Your task to perform on an android device: change text size in settings app Image 0: 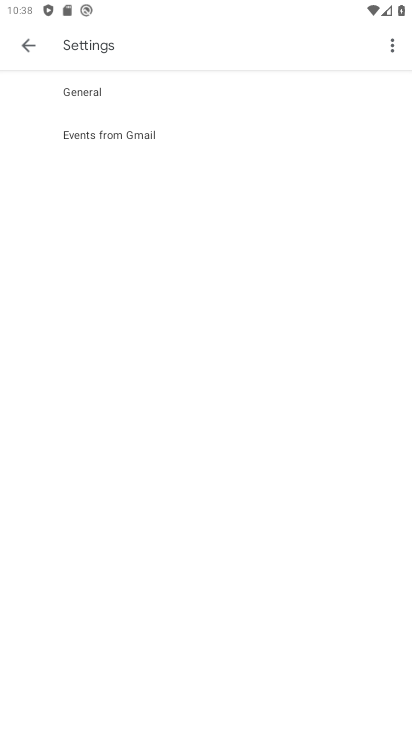
Step 0: press home button
Your task to perform on an android device: change text size in settings app Image 1: 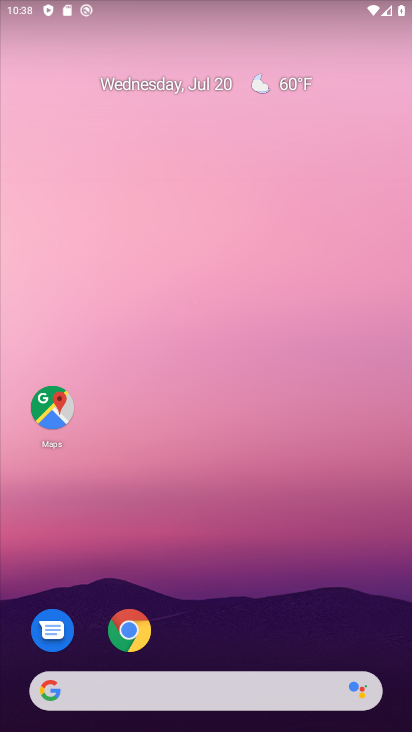
Step 1: drag from (259, 728) to (247, 163)
Your task to perform on an android device: change text size in settings app Image 2: 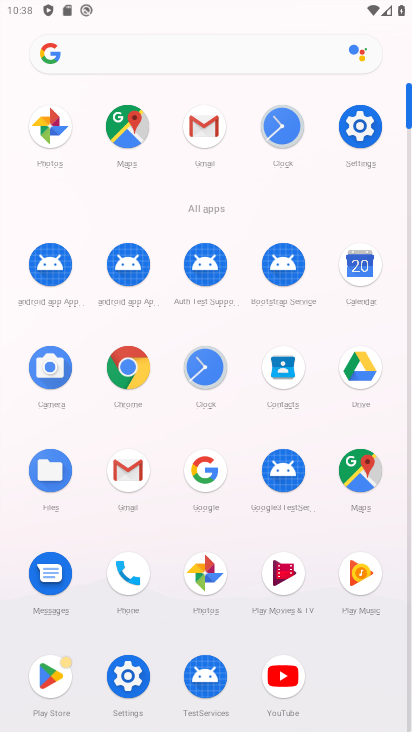
Step 2: click (364, 124)
Your task to perform on an android device: change text size in settings app Image 3: 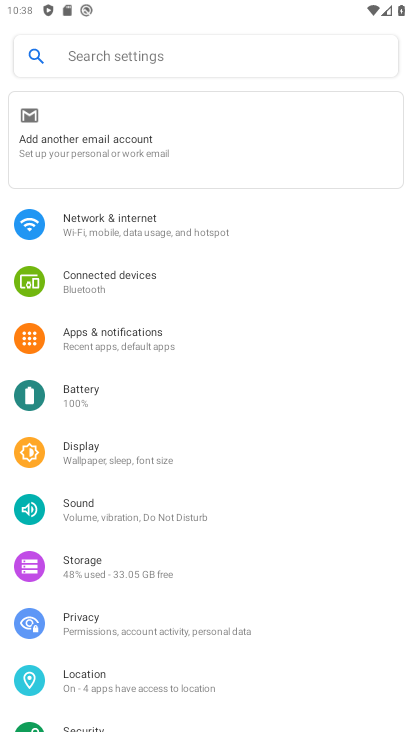
Step 3: click (113, 464)
Your task to perform on an android device: change text size in settings app Image 4: 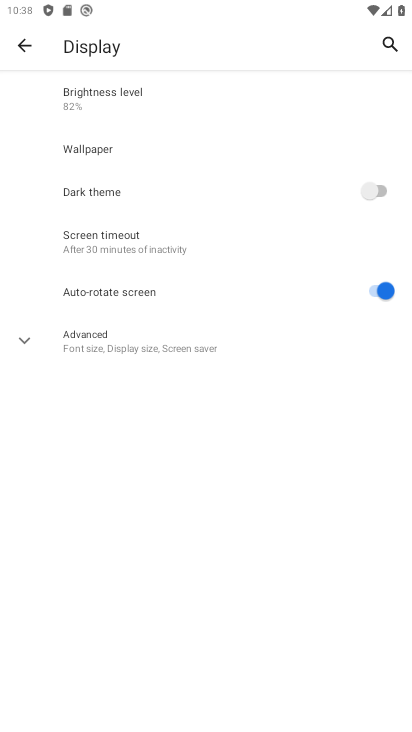
Step 4: click (155, 349)
Your task to perform on an android device: change text size in settings app Image 5: 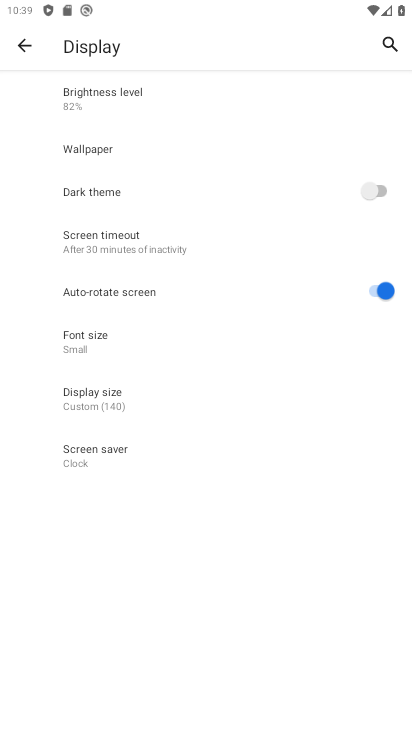
Step 5: click (89, 340)
Your task to perform on an android device: change text size in settings app Image 6: 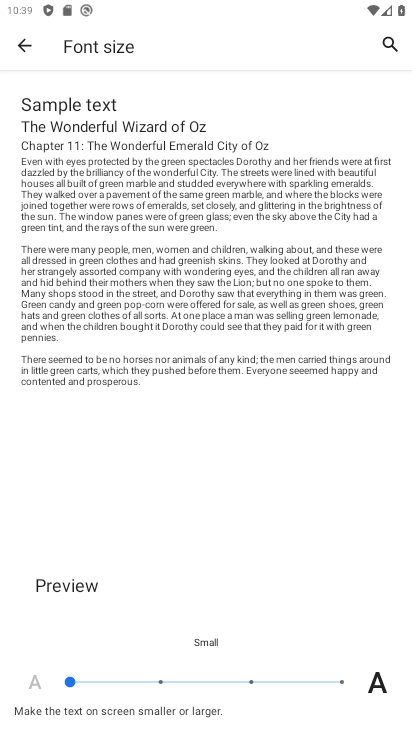
Step 6: click (341, 679)
Your task to perform on an android device: change text size in settings app Image 7: 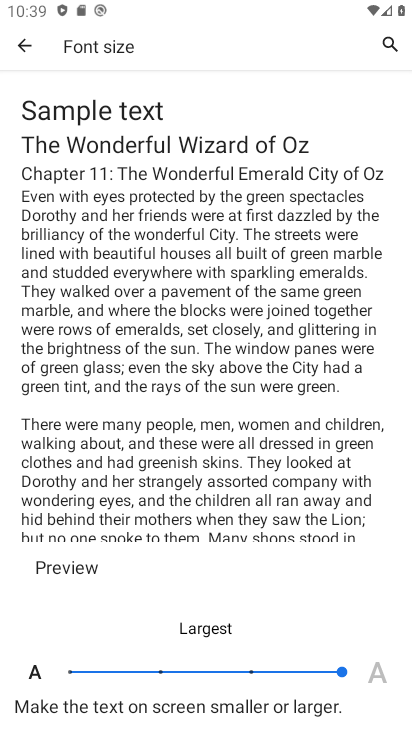
Step 7: task complete